Your task to perform on an android device: Open display settings Image 0: 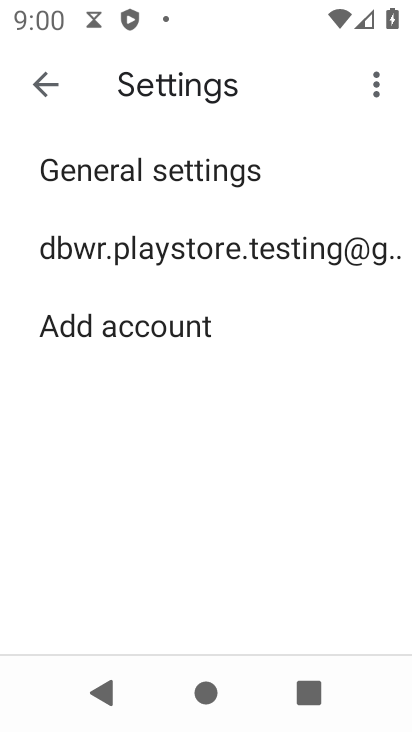
Step 0: press home button
Your task to perform on an android device: Open display settings Image 1: 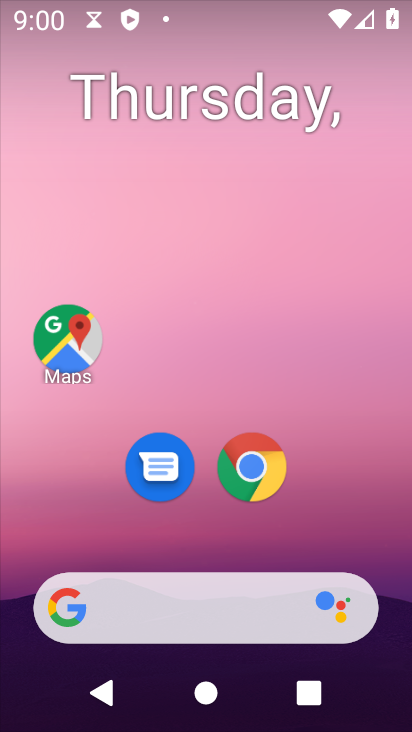
Step 1: drag from (317, 546) to (381, 80)
Your task to perform on an android device: Open display settings Image 2: 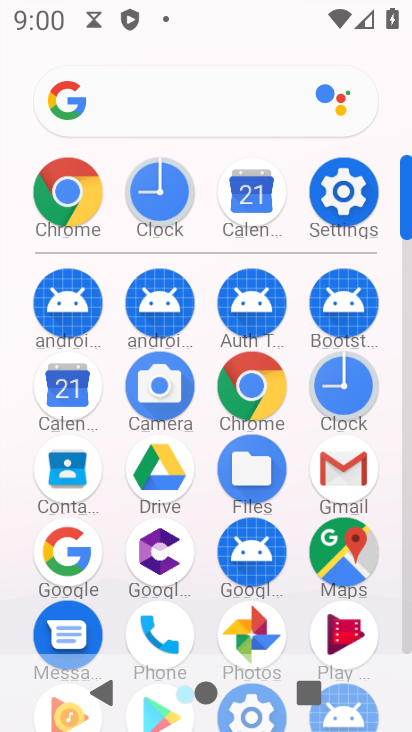
Step 2: click (335, 191)
Your task to perform on an android device: Open display settings Image 3: 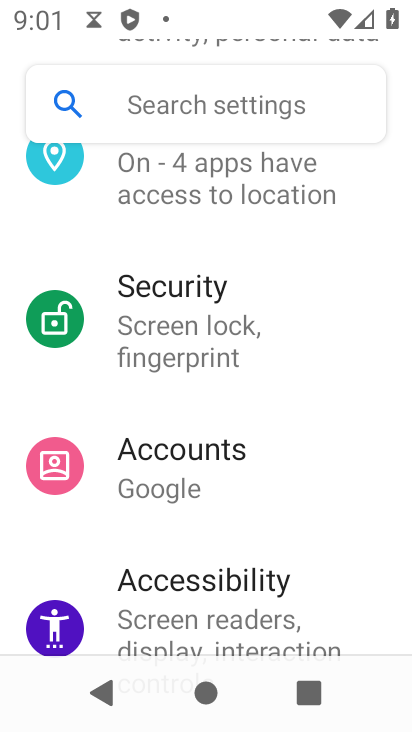
Step 3: drag from (252, 272) to (253, 309)
Your task to perform on an android device: Open display settings Image 4: 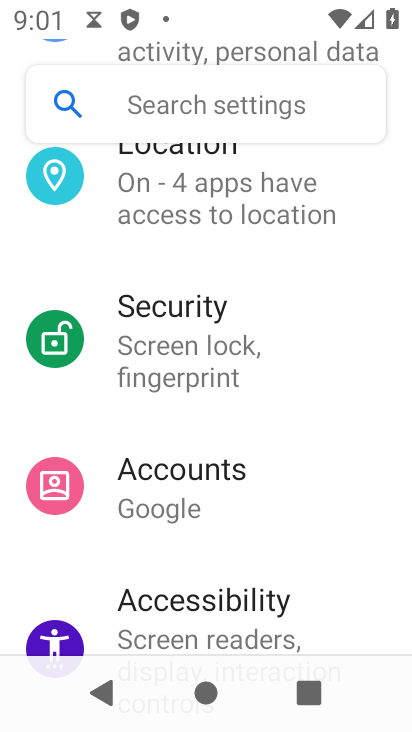
Step 4: drag from (242, 270) to (250, 337)
Your task to perform on an android device: Open display settings Image 5: 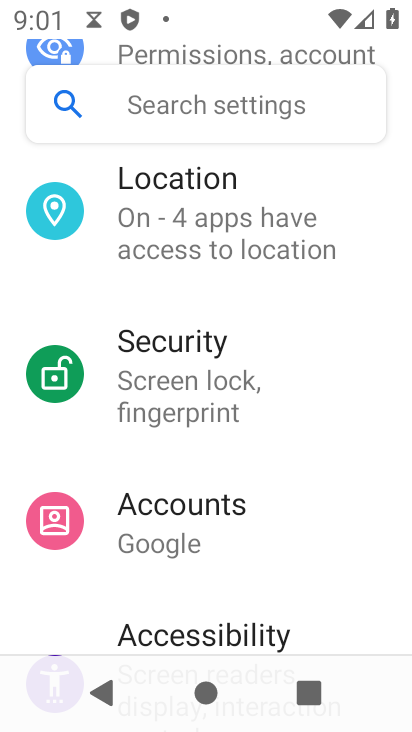
Step 5: drag from (241, 270) to (260, 333)
Your task to perform on an android device: Open display settings Image 6: 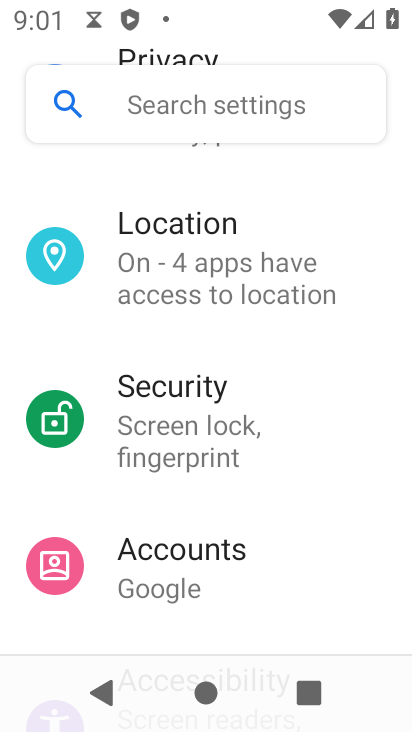
Step 6: drag from (263, 290) to (276, 364)
Your task to perform on an android device: Open display settings Image 7: 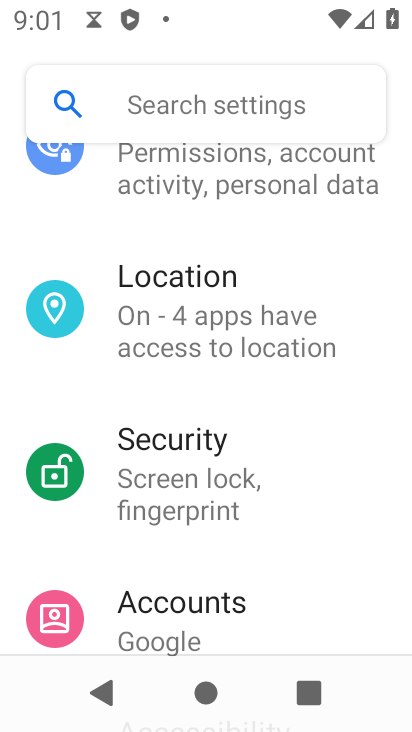
Step 7: drag from (268, 326) to (281, 393)
Your task to perform on an android device: Open display settings Image 8: 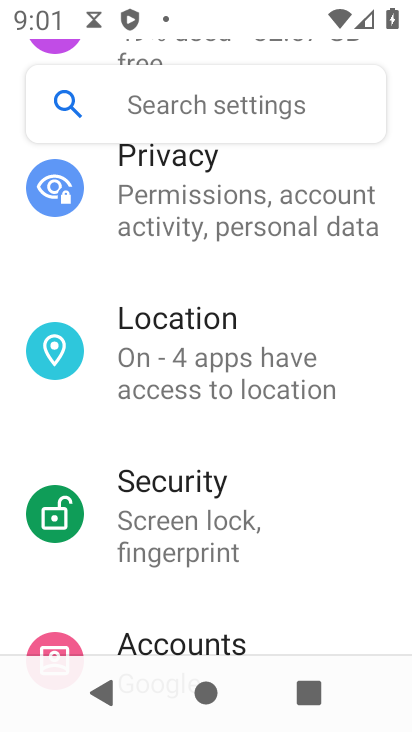
Step 8: drag from (264, 326) to (287, 403)
Your task to perform on an android device: Open display settings Image 9: 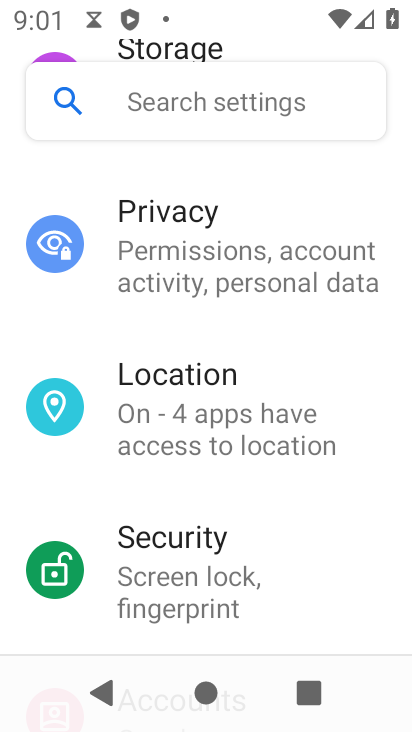
Step 9: drag from (276, 345) to (308, 434)
Your task to perform on an android device: Open display settings Image 10: 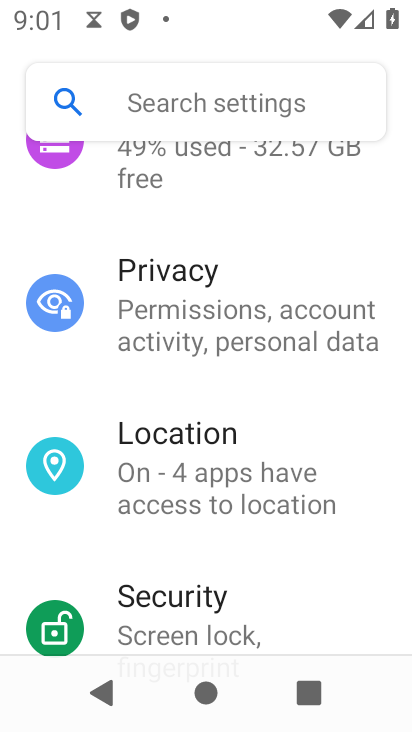
Step 10: drag from (292, 333) to (326, 419)
Your task to perform on an android device: Open display settings Image 11: 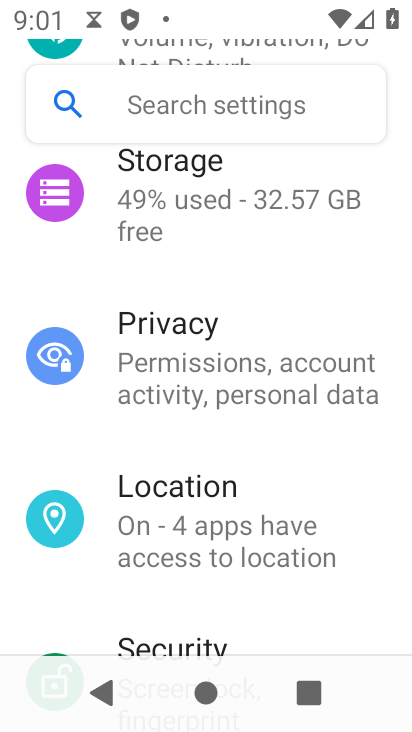
Step 11: drag from (286, 295) to (349, 402)
Your task to perform on an android device: Open display settings Image 12: 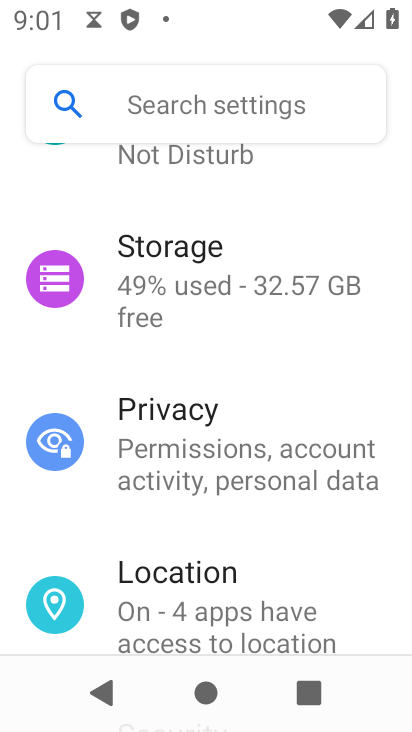
Step 12: drag from (309, 248) to (302, 391)
Your task to perform on an android device: Open display settings Image 13: 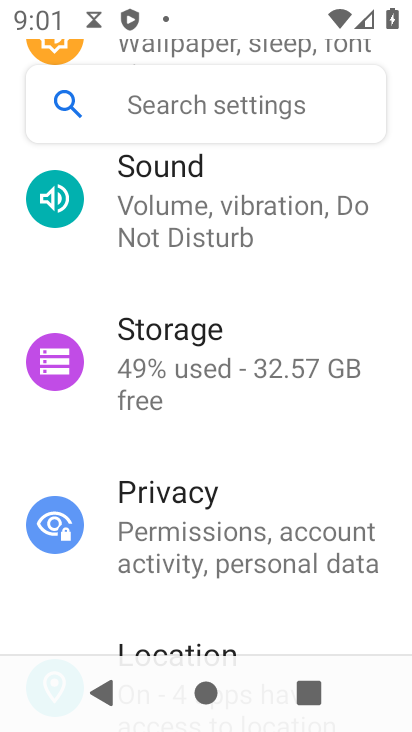
Step 13: drag from (247, 314) to (251, 426)
Your task to perform on an android device: Open display settings Image 14: 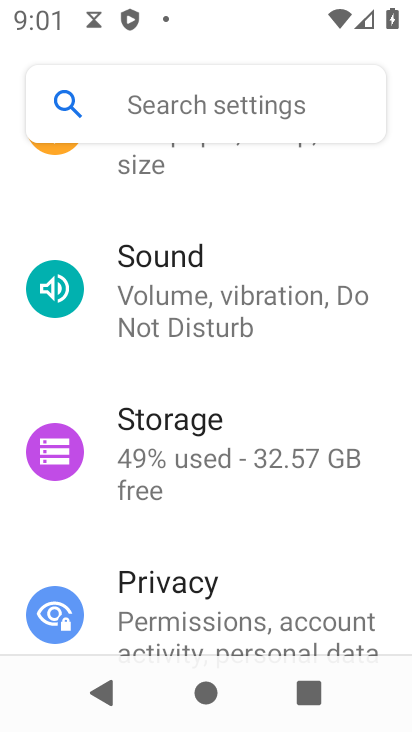
Step 14: drag from (241, 357) to (259, 492)
Your task to perform on an android device: Open display settings Image 15: 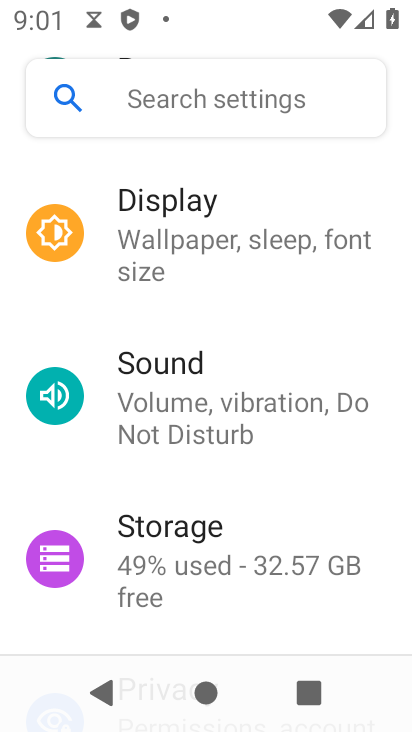
Step 15: click (218, 270)
Your task to perform on an android device: Open display settings Image 16: 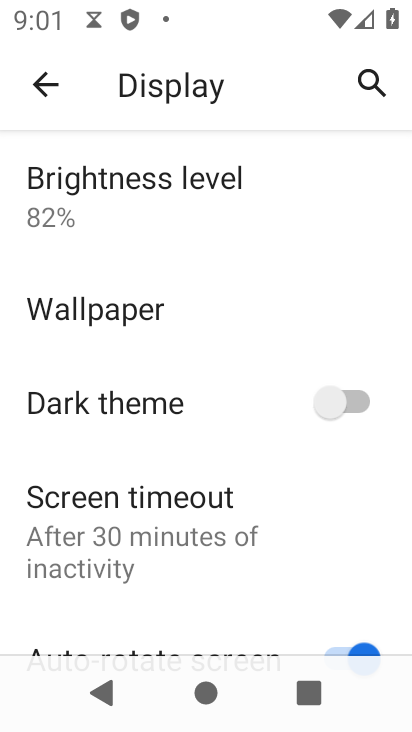
Step 16: task complete